Your task to perform on an android device: star an email in the gmail app Image 0: 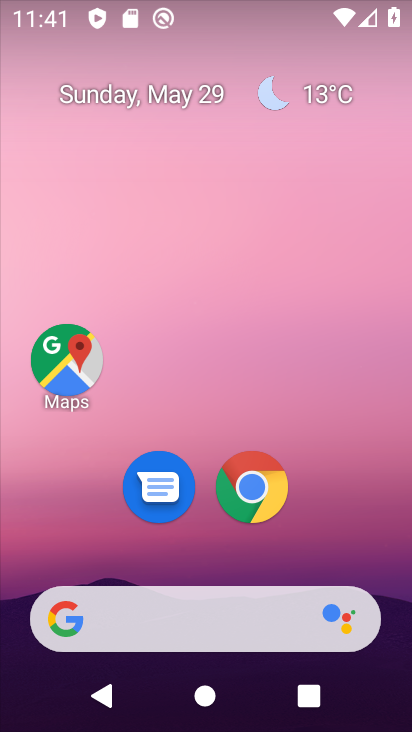
Step 0: drag from (347, 546) to (343, 147)
Your task to perform on an android device: star an email in the gmail app Image 1: 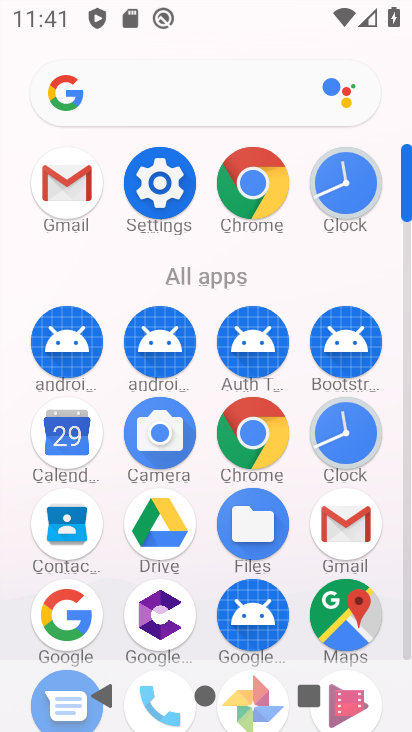
Step 1: click (347, 517)
Your task to perform on an android device: star an email in the gmail app Image 2: 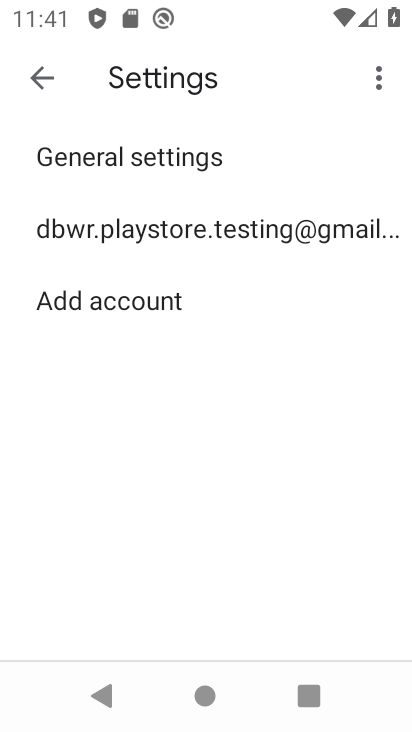
Step 2: click (42, 70)
Your task to perform on an android device: star an email in the gmail app Image 3: 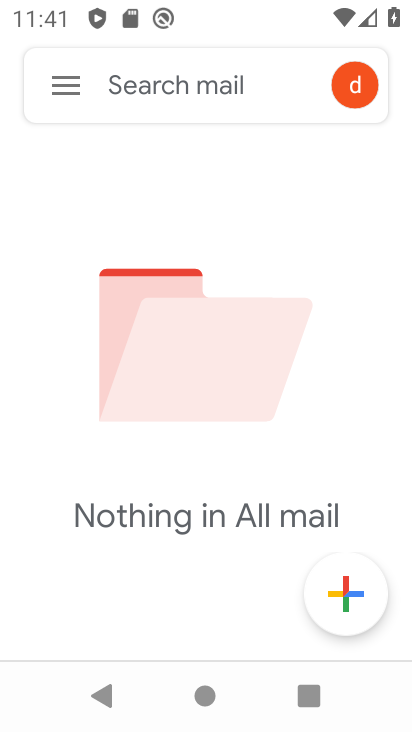
Step 3: click (42, 71)
Your task to perform on an android device: star an email in the gmail app Image 4: 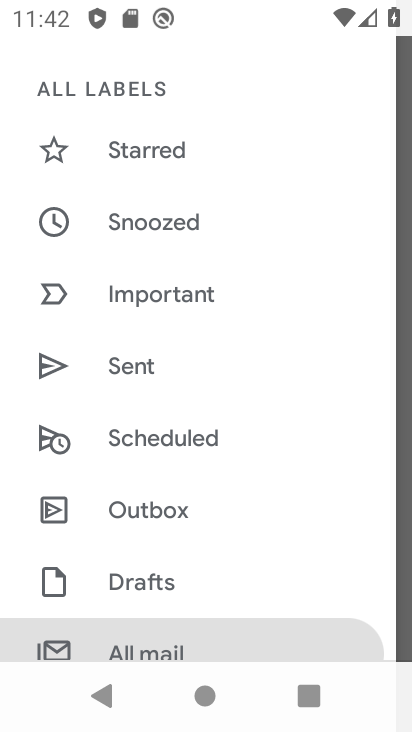
Step 4: task complete